Your task to perform on an android device: Go to Amazon Image 0: 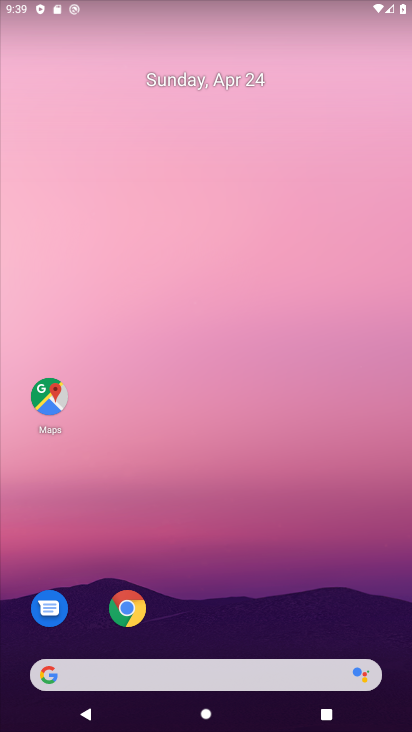
Step 0: drag from (273, 630) to (364, 107)
Your task to perform on an android device: Go to Amazon Image 1: 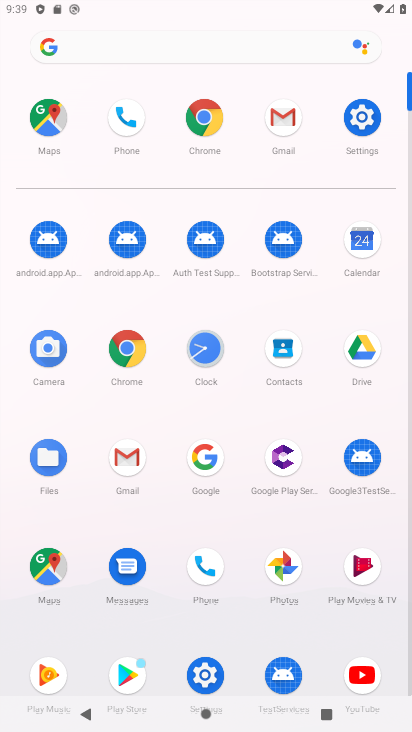
Step 1: click (207, 123)
Your task to perform on an android device: Go to Amazon Image 2: 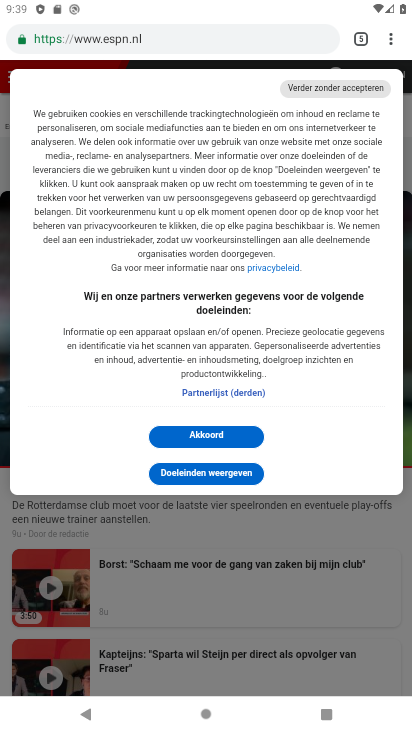
Step 2: click (387, 42)
Your task to perform on an android device: Go to Amazon Image 3: 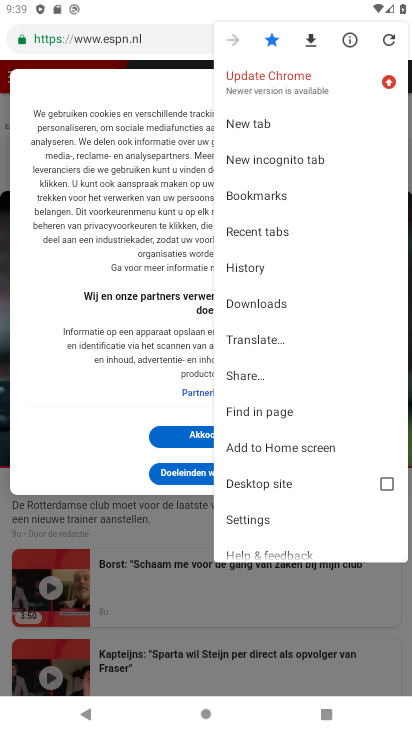
Step 3: click (280, 133)
Your task to perform on an android device: Go to Amazon Image 4: 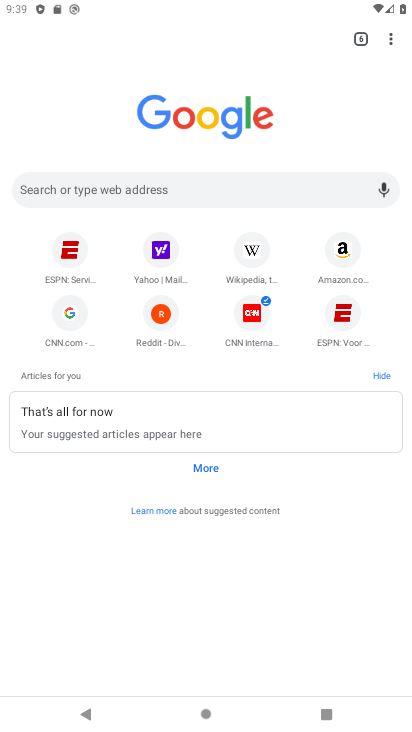
Step 4: click (340, 254)
Your task to perform on an android device: Go to Amazon Image 5: 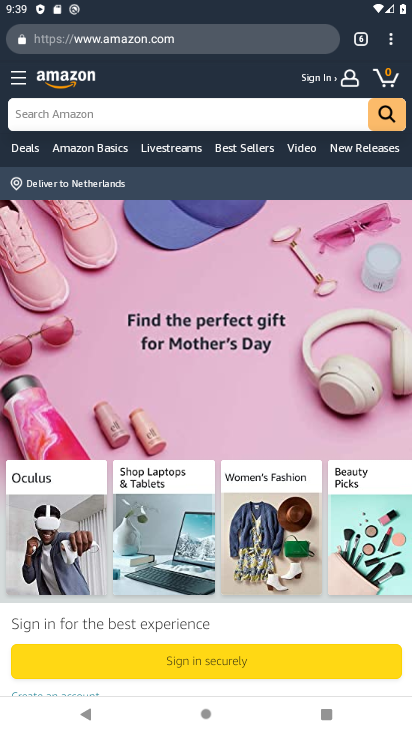
Step 5: task complete